Your task to perform on an android device: Turn off the flashlight Image 0: 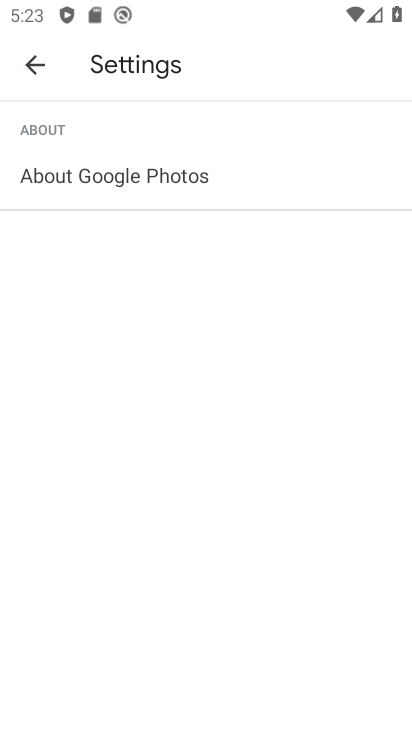
Step 0: press home button
Your task to perform on an android device: Turn off the flashlight Image 1: 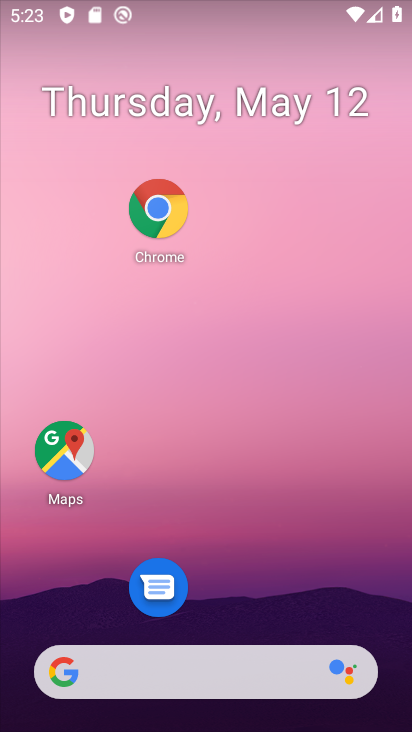
Step 1: task complete